Your task to perform on an android device: toggle priority inbox in the gmail app Image 0: 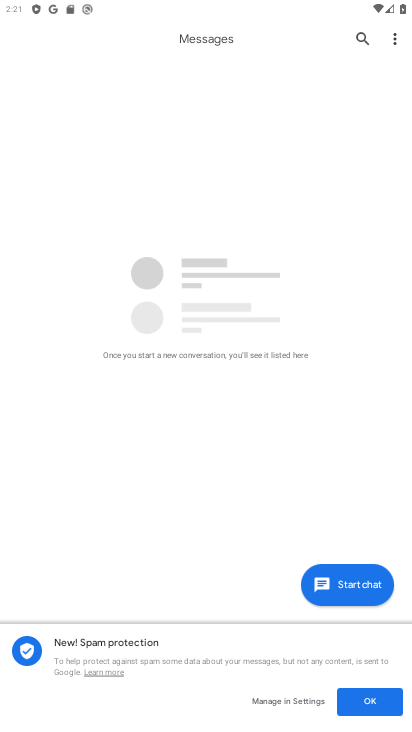
Step 0: press home button
Your task to perform on an android device: toggle priority inbox in the gmail app Image 1: 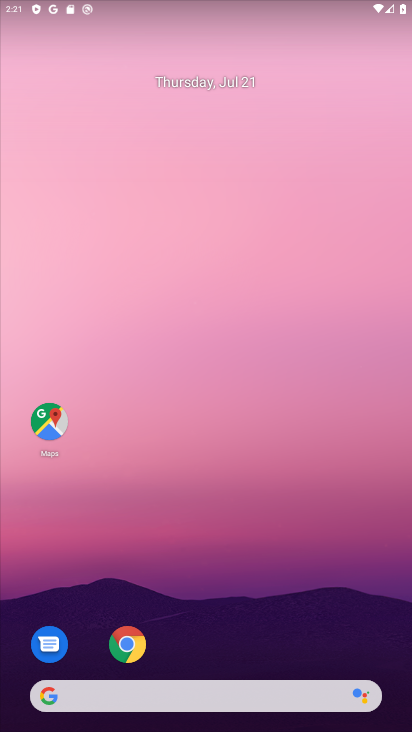
Step 1: drag from (278, 636) to (231, 86)
Your task to perform on an android device: toggle priority inbox in the gmail app Image 2: 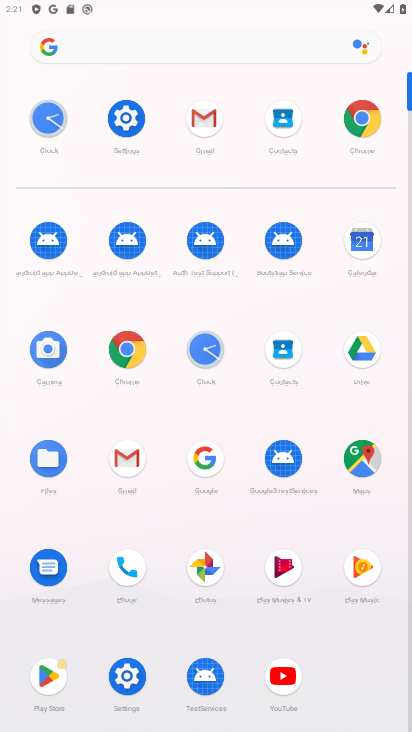
Step 2: click (204, 122)
Your task to perform on an android device: toggle priority inbox in the gmail app Image 3: 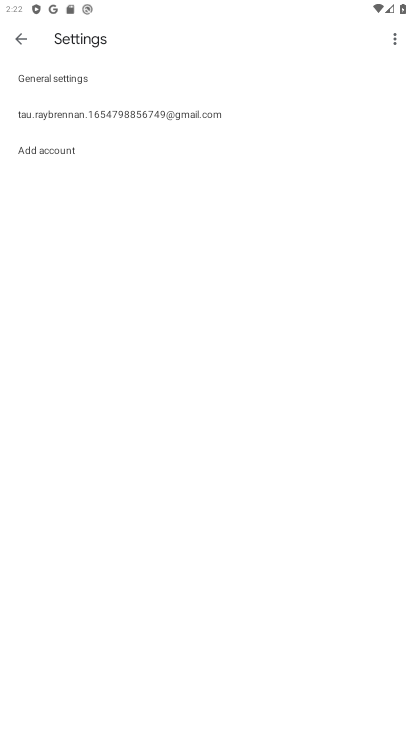
Step 3: click (97, 118)
Your task to perform on an android device: toggle priority inbox in the gmail app Image 4: 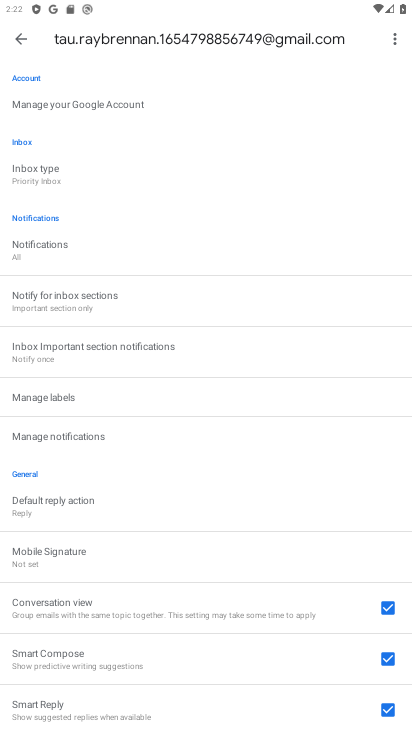
Step 4: click (87, 175)
Your task to perform on an android device: toggle priority inbox in the gmail app Image 5: 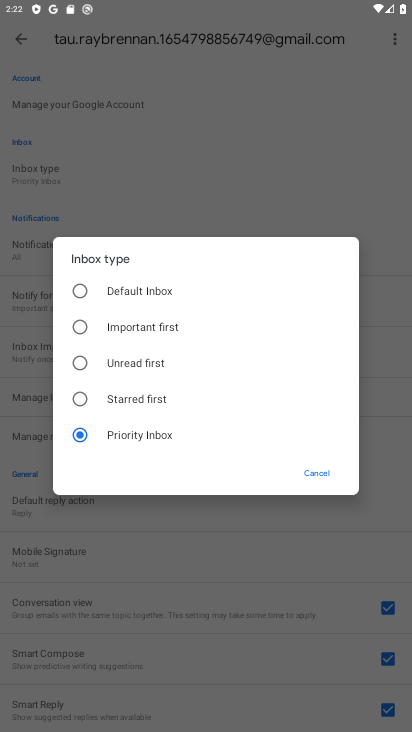
Step 5: click (144, 400)
Your task to perform on an android device: toggle priority inbox in the gmail app Image 6: 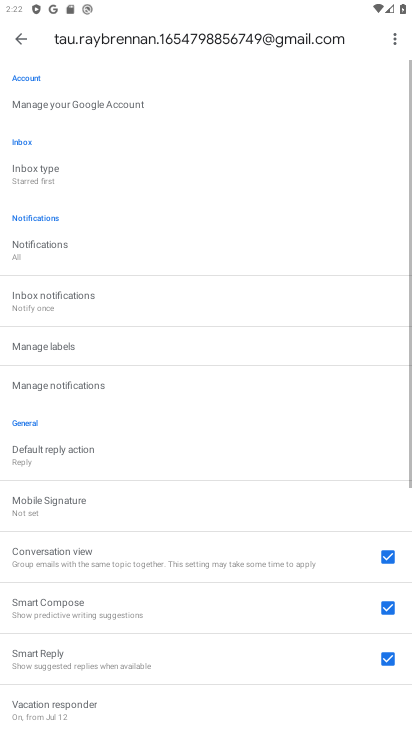
Step 6: task complete